Your task to perform on an android device: Go to Wikipedia Image 0: 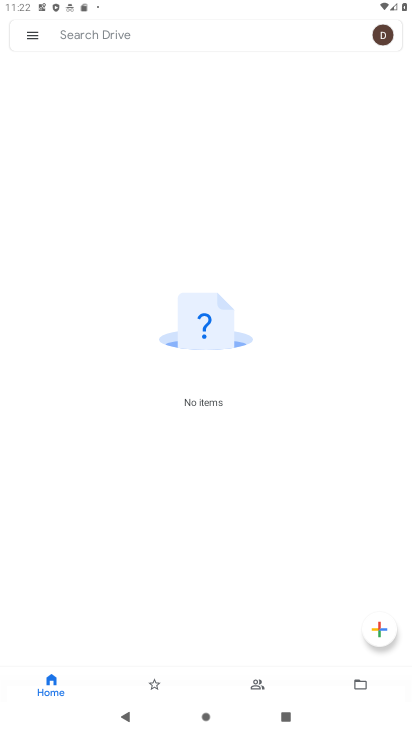
Step 0: press home button
Your task to perform on an android device: Go to Wikipedia Image 1: 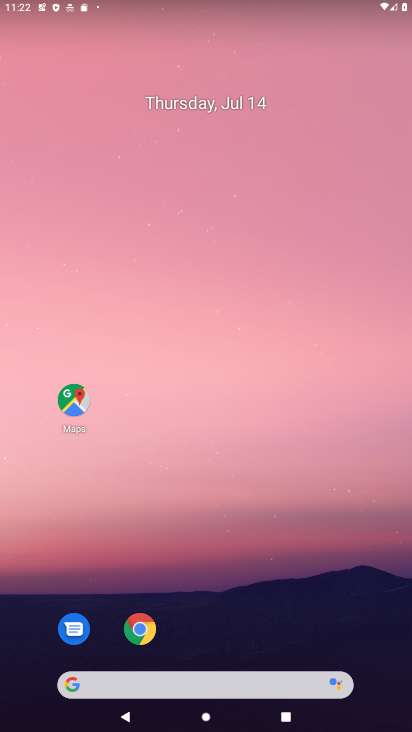
Step 1: click (69, 684)
Your task to perform on an android device: Go to Wikipedia Image 2: 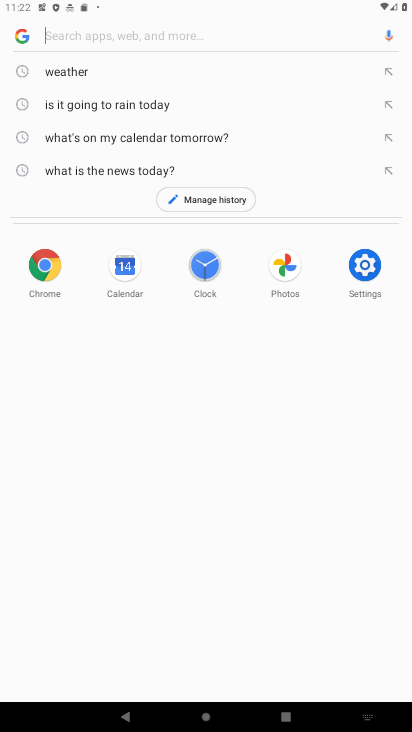
Step 2: type "Wikipedia"
Your task to perform on an android device: Go to Wikipedia Image 3: 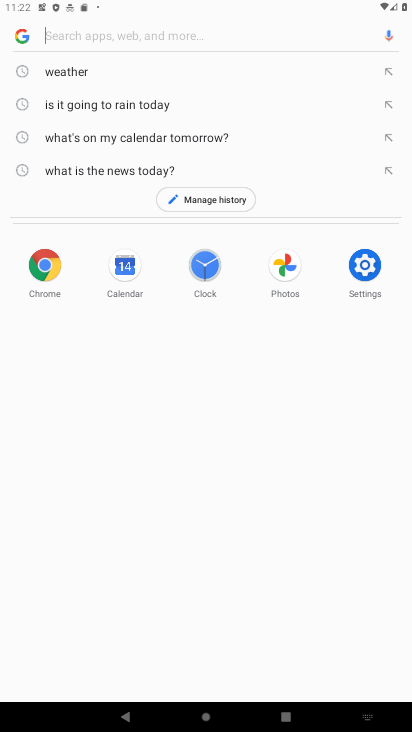
Step 3: click (90, 36)
Your task to perform on an android device: Go to Wikipedia Image 4: 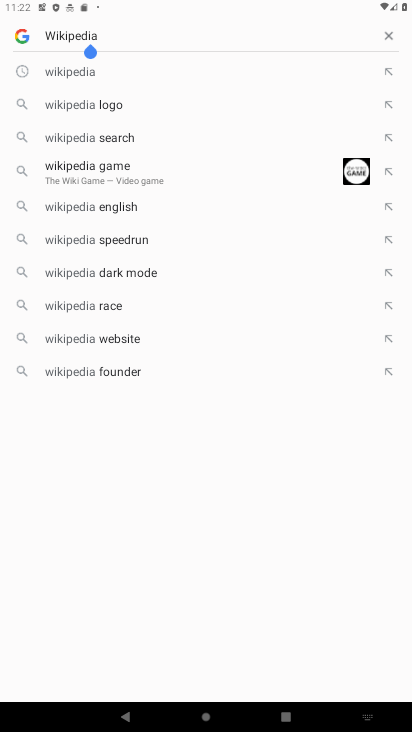
Step 4: click (55, 71)
Your task to perform on an android device: Go to Wikipedia Image 5: 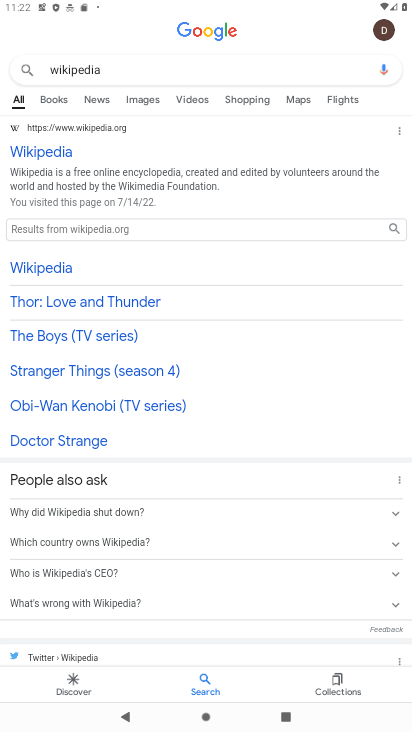
Step 5: click (33, 153)
Your task to perform on an android device: Go to Wikipedia Image 6: 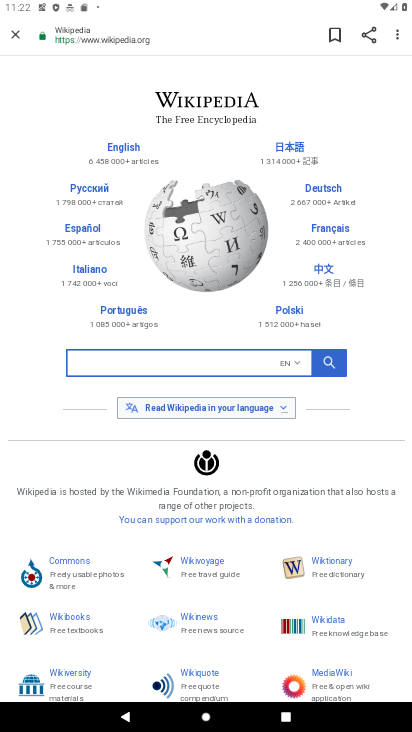
Step 6: task complete